Your task to perform on an android device: turn on the 24-hour format for clock Image 0: 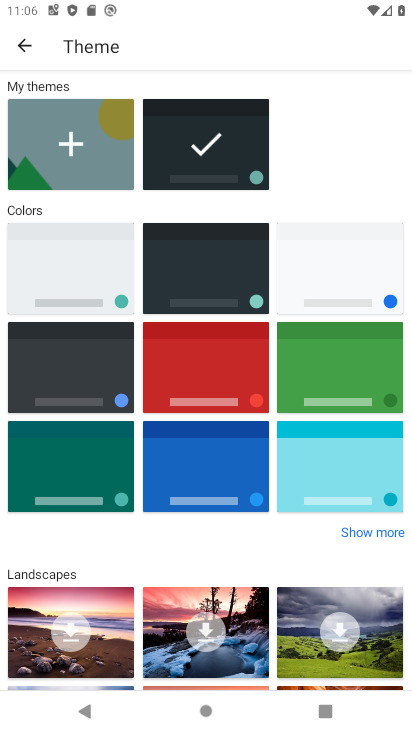
Step 0: press home button
Your task to perform on an android device: turn on the 24-hour format for clock Image 1: 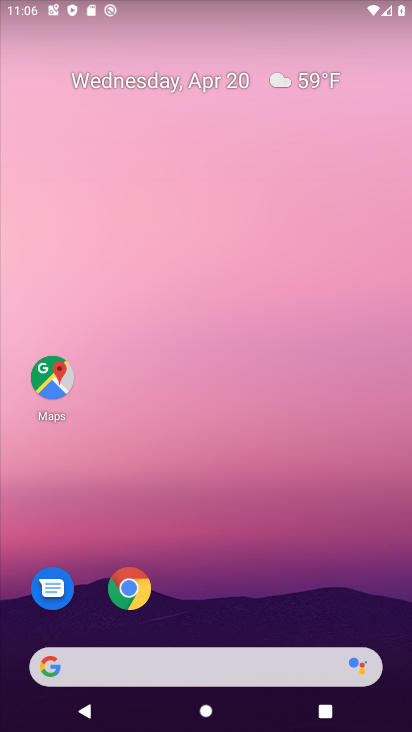
Step 1: drag from (223, 725) to (203, 96)
Your task to perform on an android device: turn on the 24-hour format for clock Image 2: 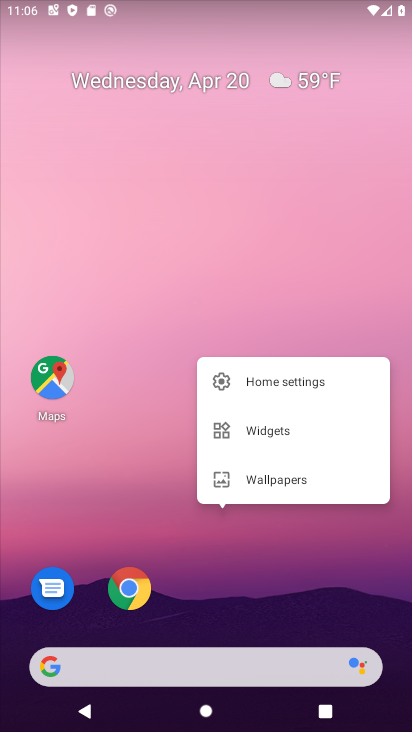
Step 2: click (212, 276)
Your task to perform on an android device: turn on the 24-hour format for clock Image 3: 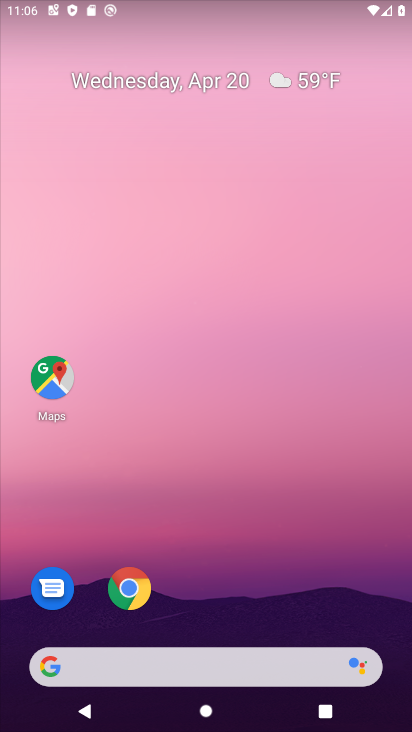
Step 3: drag from (221, 596) to (219, 156)
Your task to perform on an android device: turn on the 24-hour format for clock Image 4: 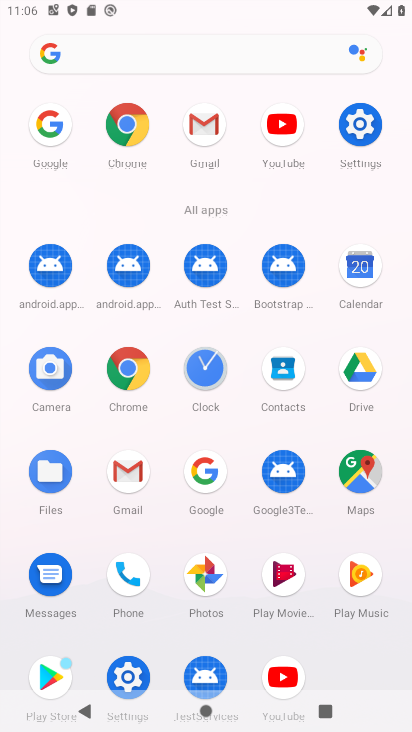
Step 4: click (202, 364)
Your task to perform on an android device: turn on the 24-hour format for clock Image 5: 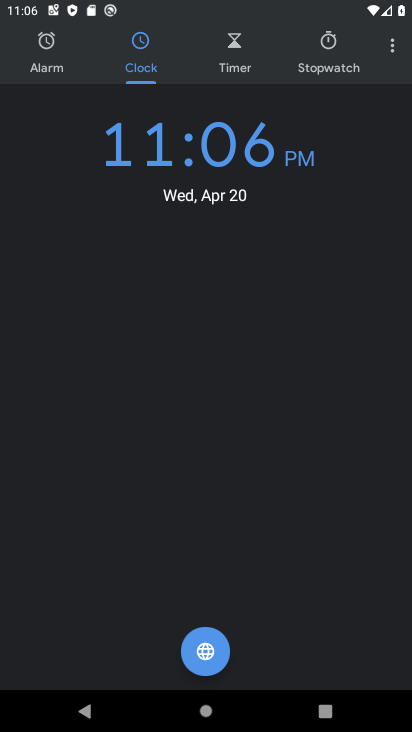
Step 5: click (393, 46)
Your task to perform on an android device: turn on the 24-hour format for clock Image 6: 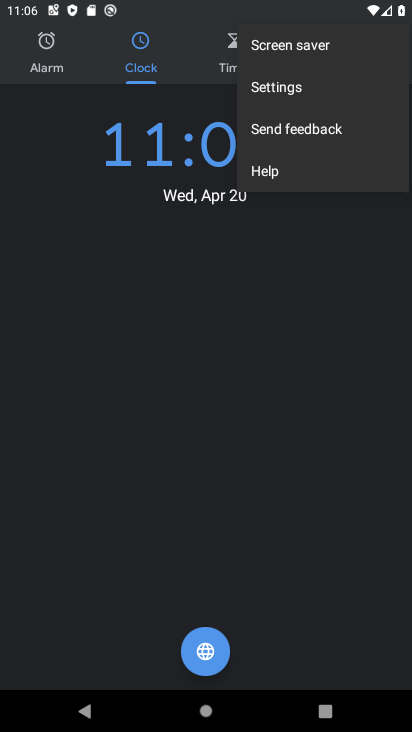
Step 6: click (292, 90)
Your task to perform on an android device: turn on the 24-hour format for clock Image 7: 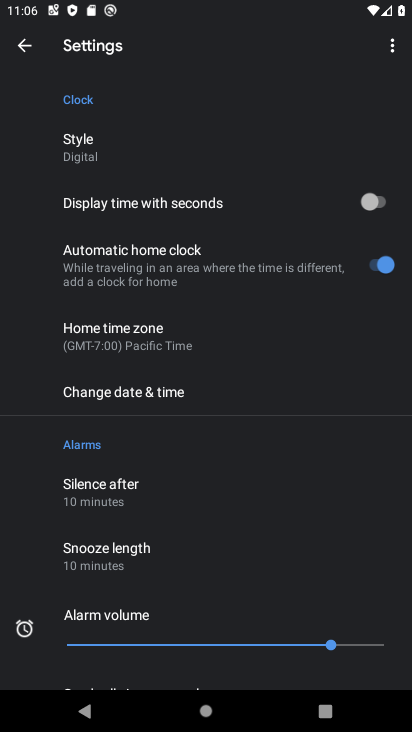
Step 7: click (139, 395)
Your task to perform on an android device: turn on the 24-hour format for clock Image 8: 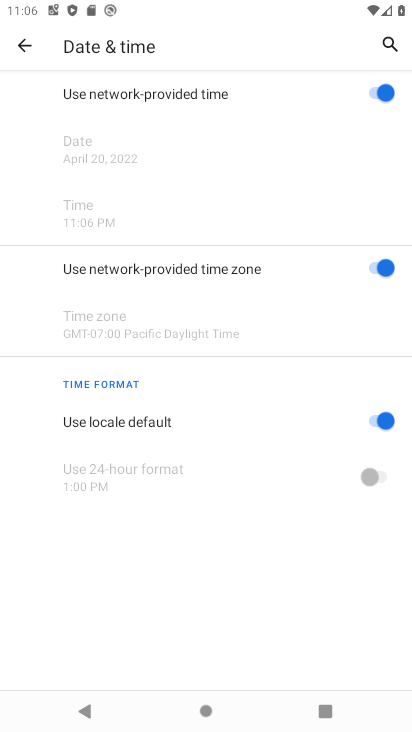
Step 8: click (372, 422)
Your task to perform on an android device: turn on the 24-hour format for clock Image 9: 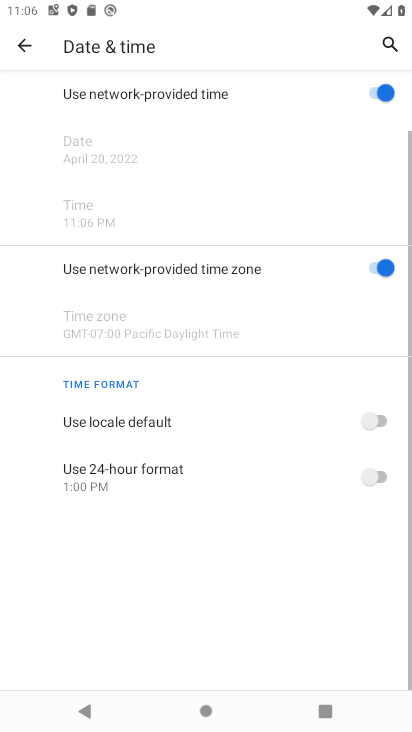
Step 9: click (377, 476)
Your task to perform on an android device: turn on the 24-hour format for clock Image 10: 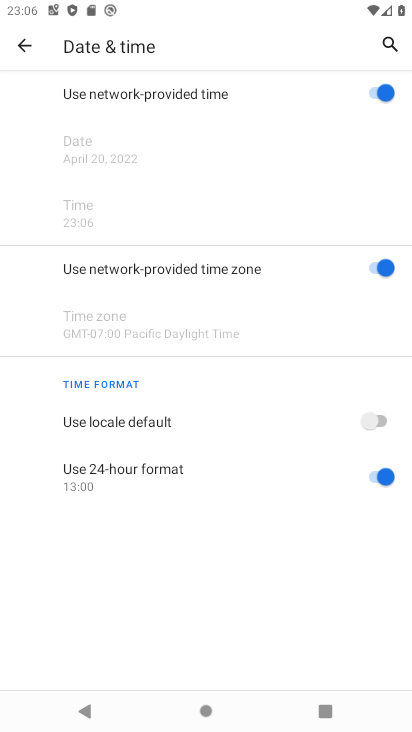
Step 10: task complete